Your task to perform on an android device: check google app version Image 0: 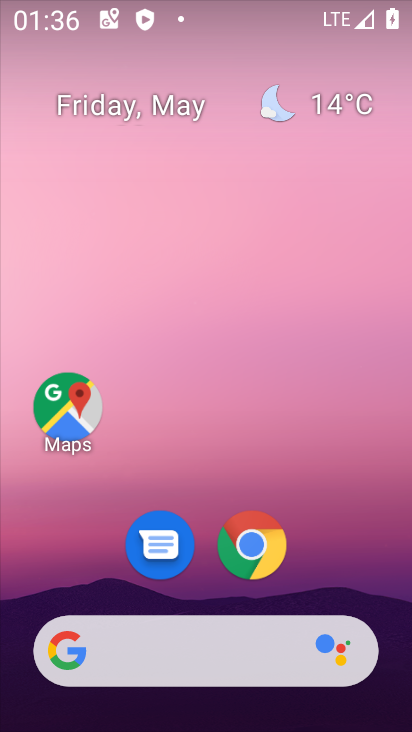
Step 0: drag from (295, 569) to (295, 85)
Your task to perform on an android device: check google app version Image 1: 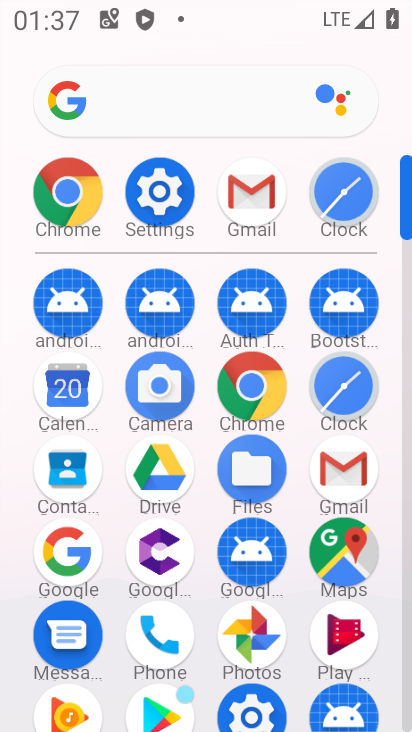
Step 1: press home button
Your task to perform on an android device: check google app version Image 2: 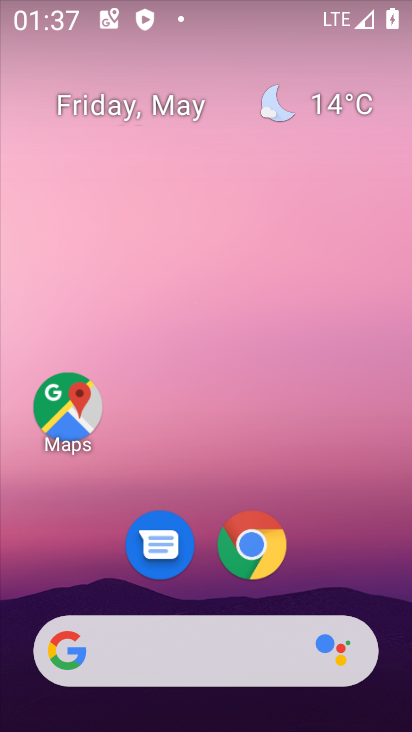
Step 2: drag from (320, 473) to (280, 126)
Your task to perform on an android device: check google app version Image 3: 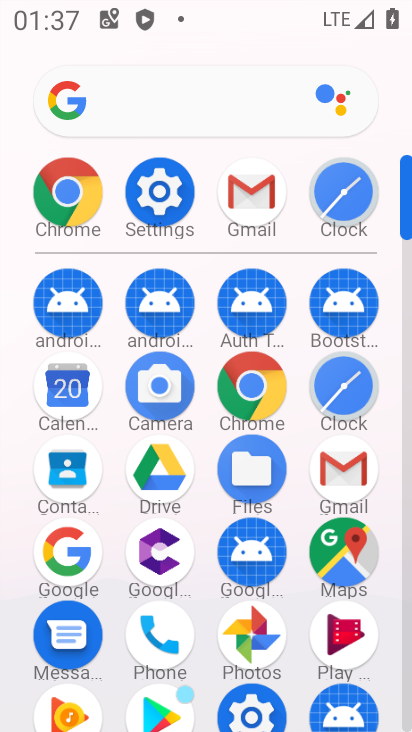
Step 3: click (86, 591)
Your task to perform on an android device: check google app version Image 4: 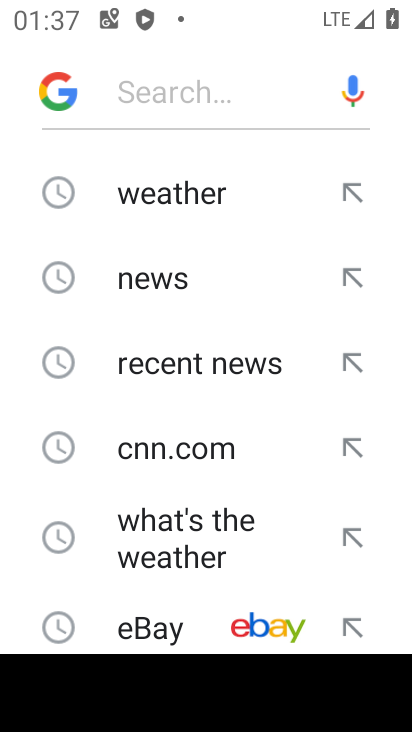
Step 4: click (66, 115)
Your task to perform on an android device: check google app version Image 5: 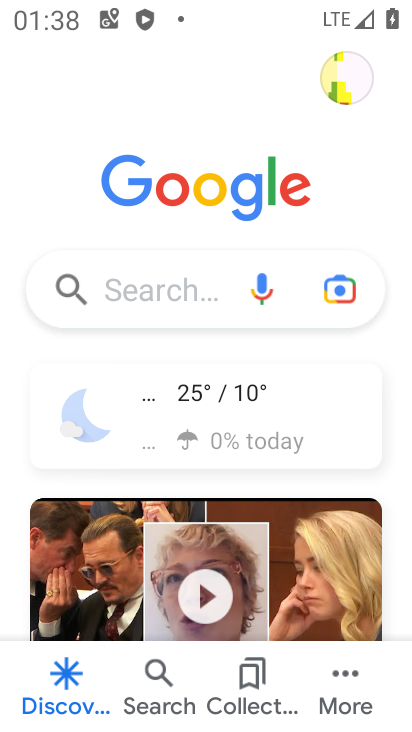
Step 5: click (359, 683)
Your task to perform on an android device: check google app version Image 6: 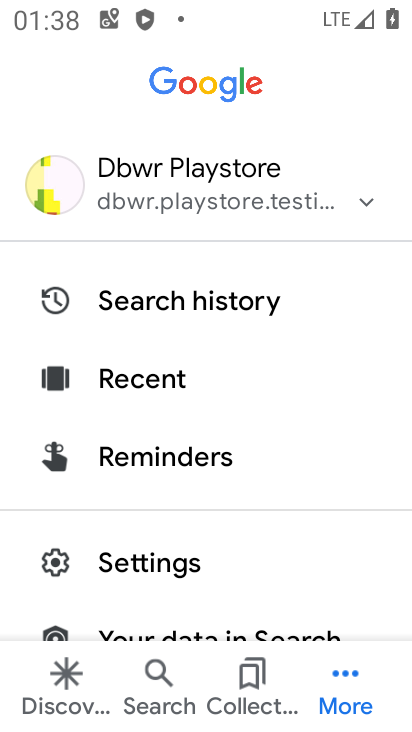
Step 6: click (155, 560)
Your task to perform on an android device: check google app version Image 7: 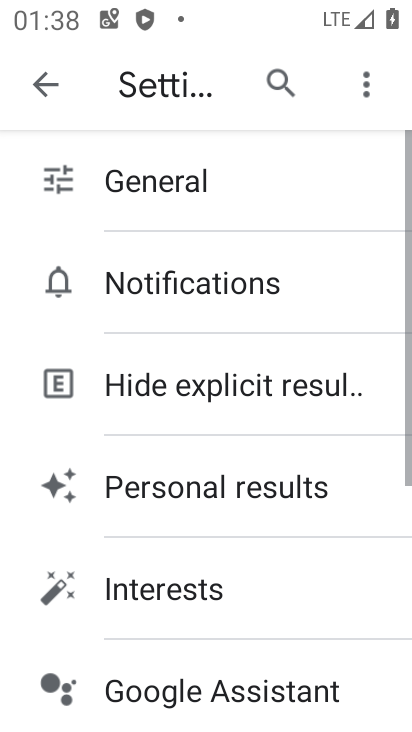
Step 7: drag from (202, 607) to (184, 312)
Your task to perform on an android device: check google app version Image 8: 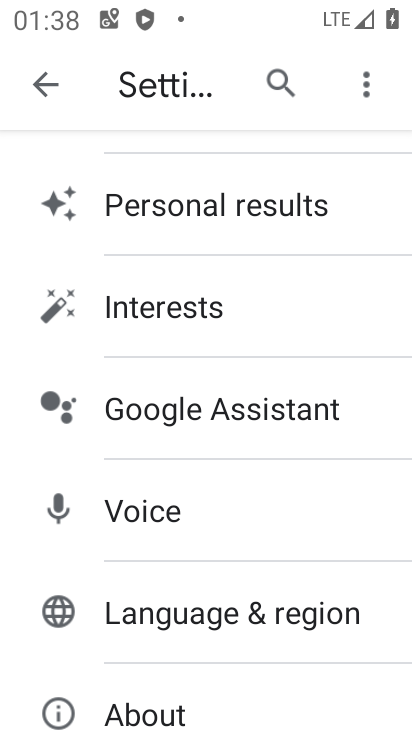
Step 8: click (174, 703)
Your task to perform on an android device: check google app version Image 9: 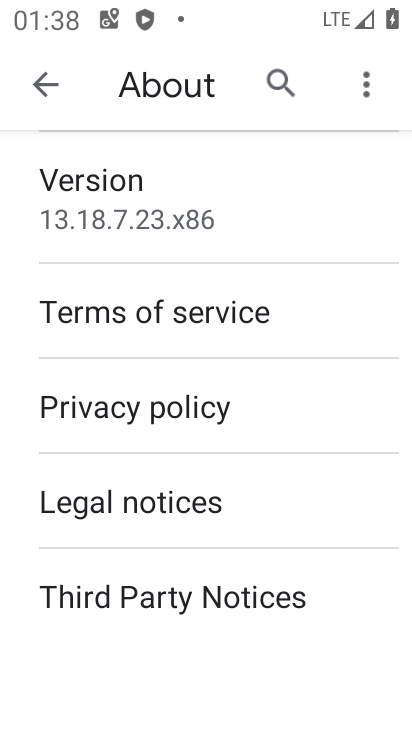
Step 9: task complete